Your task to perform on an android device: read, delete, or share a saved page in the chrome app Image 0: 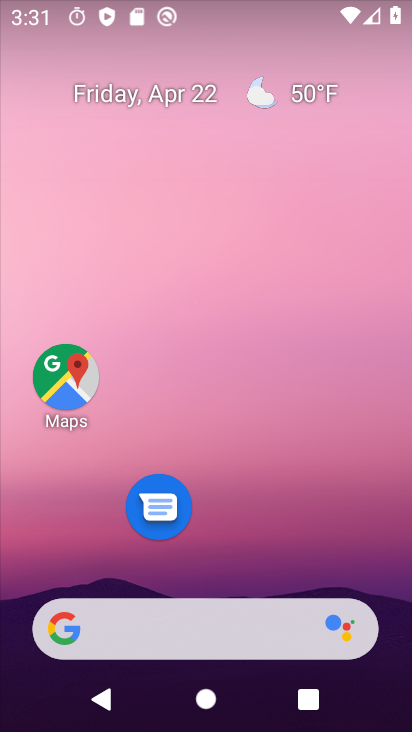
Step 0: drag from (245, 402) to (289, 98)
Your task to perform on an android device: read, delete, or share a saved page in the chrome app Image 1: 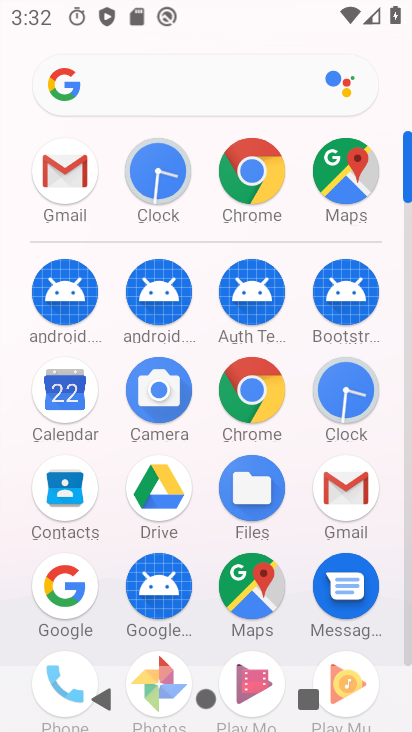
Step 1: click (249, 167)
Your task to perform on an android device: read, delete, or share a saved page in the chrome app Image 2: 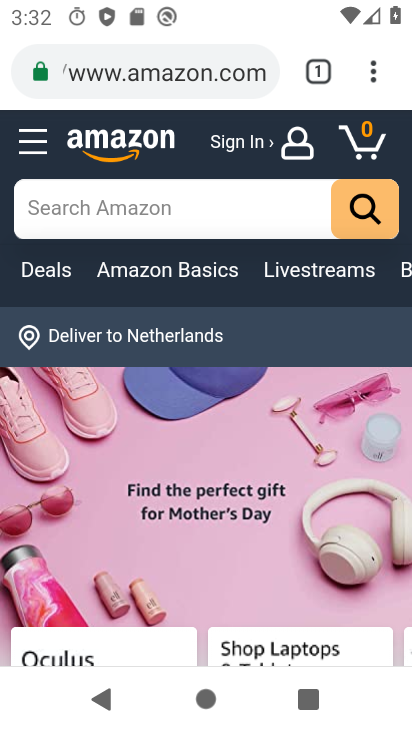
Step 2: drag from (373, 61) to (155, 463)
Your task to perform on an android device: read, delete, or share a saved page in the chrome app Image 3: 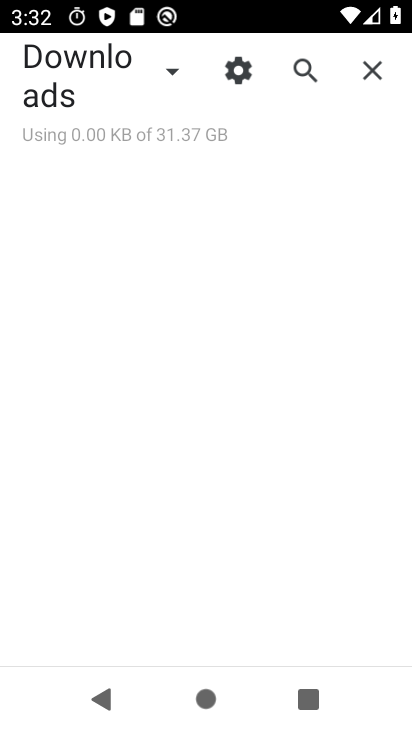
Step 3: click (167, 74)
Your task to perform on an android device: read, delete, or share a saved page in the chrome app Image 4: 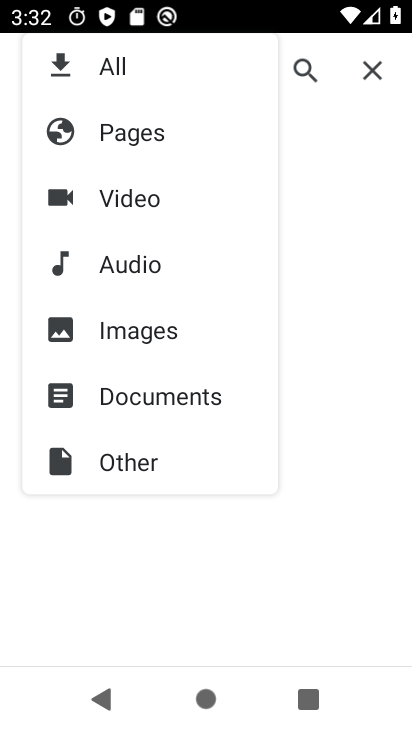
Step 4: click (142, 136)
Your task to perform on an android device: read, delete, or share a saved page in the chrome app Image 5: 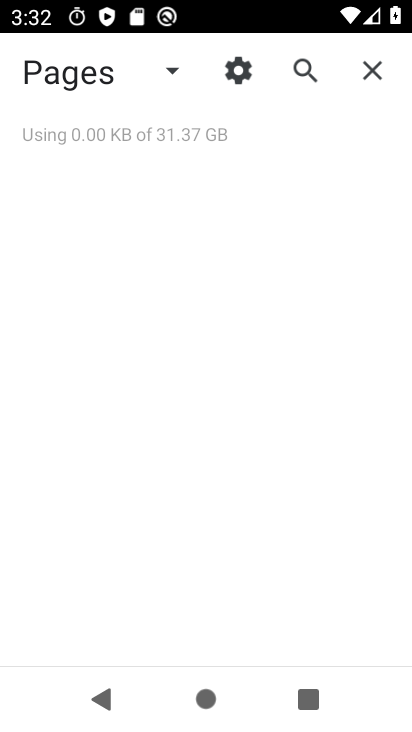
Step 5: task complete